Your task to perform on an android device: set default search engine in the chrome app Image 0: 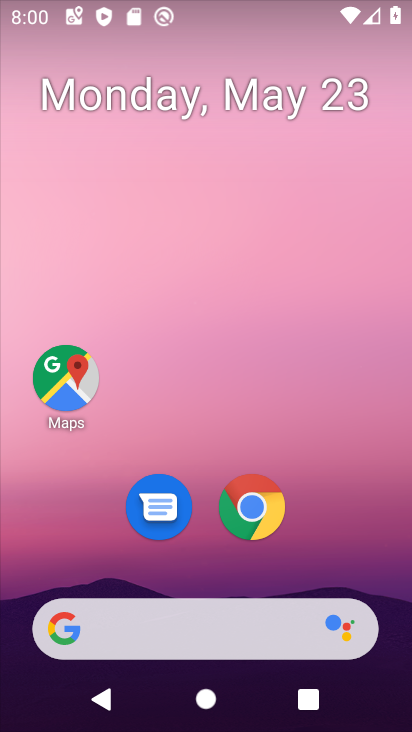
Step 0: drag from (349, 552) to (308, 166)
Your task to perform on an android device: set default search engine in the chrome app Image 1: 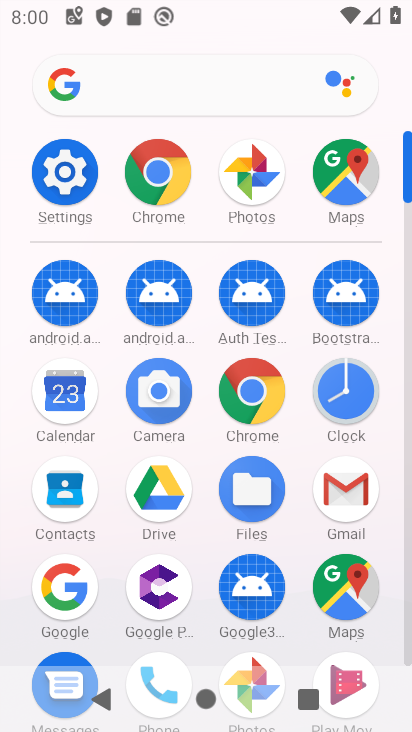
Step 1: click (278, 403)
Your task to perform on an android device: set default search engine in the chrome app Image 2: 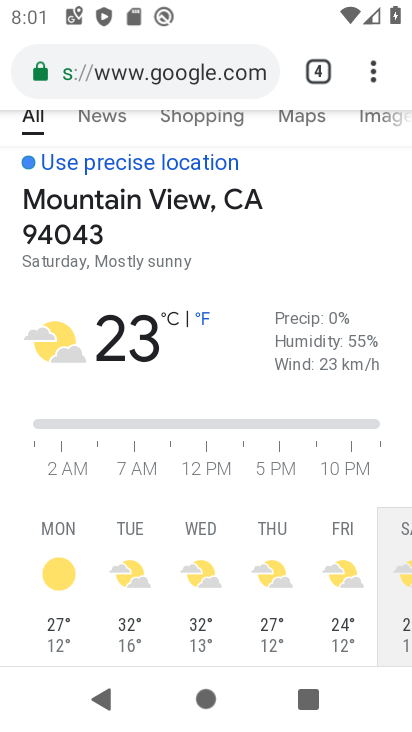
Step 2: drag from (377, 75) to (167, 512)
Your task to perform on an android device: set default search engine in the chrome app Image 3: 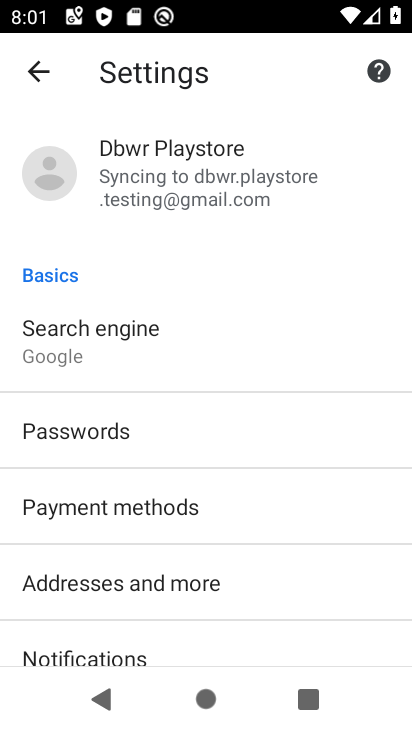
Step 3: click (141, 343)
Your task to perform on an android device: set default search engine in the chrome app Image 4: 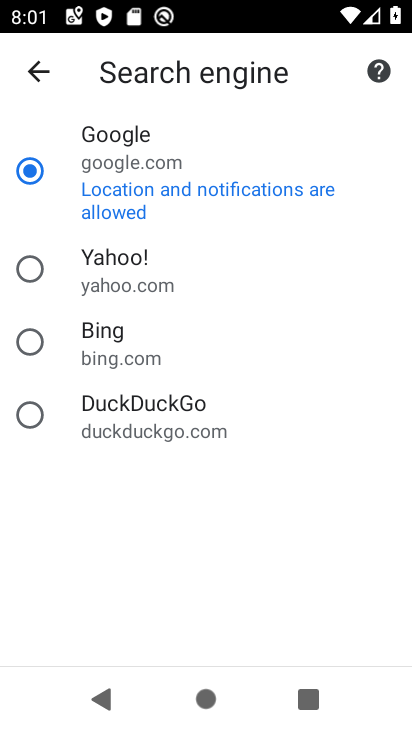
Step 4: click (118, 256)
Your task to perform on an android device: set default search engine in the chrome app Image 5: 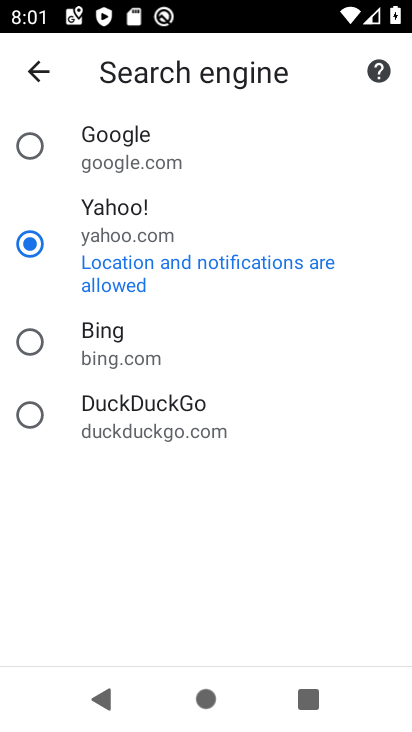
Step 5: task complete